Your task to perform on an android device: change the clock display to show seconds Image 0: 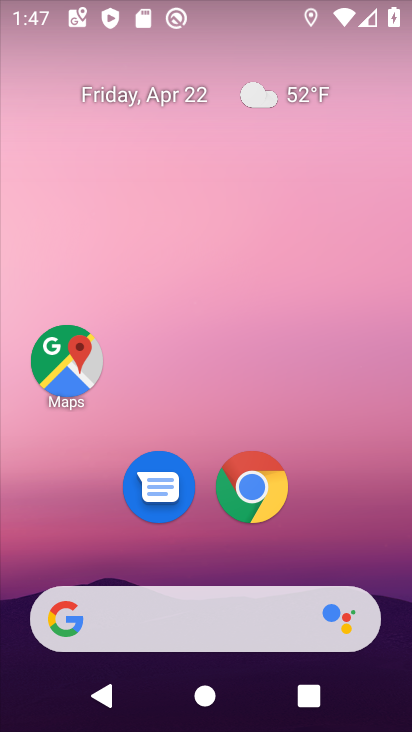
Step 0: drag from (222, 574) to (248, 155)
Your task to perform on an android device: change the clock display to show seconds Image 1: 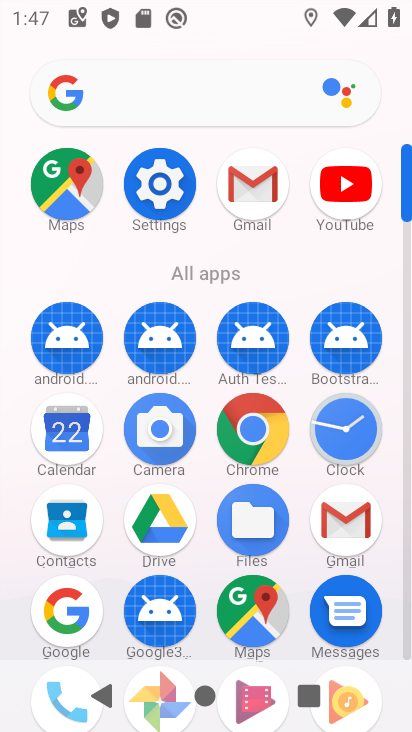
Step 1: click (326, 434)
Your task to perform on an android device: change the clock display to show seconds Image 2: 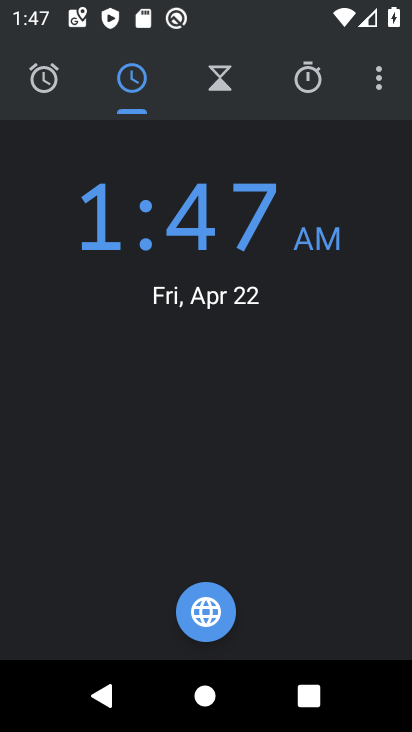
Step 2: click (367, 98)
Your task to perform on an android device: change the clock display to show seconds Image 3: 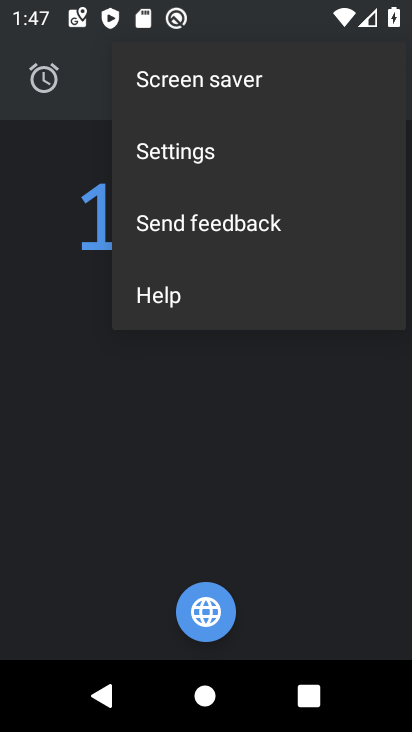
Step 3: click (199, 172)
Your task to perform on an android device: change the clock display to show seconds Image 4: 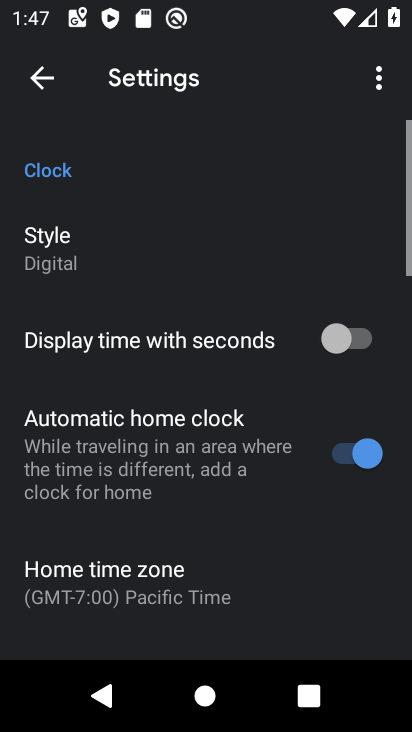
Step 4: click (339, 347)
Your task to perform on an android device: change the clock display to show seconds Image 5: 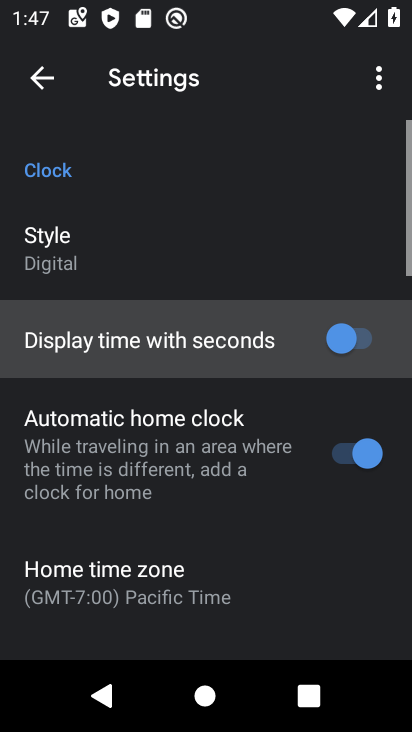
Step 5: click (66, 256)
Your task to perform on an android device: change the clock display to show seconds Image 6: 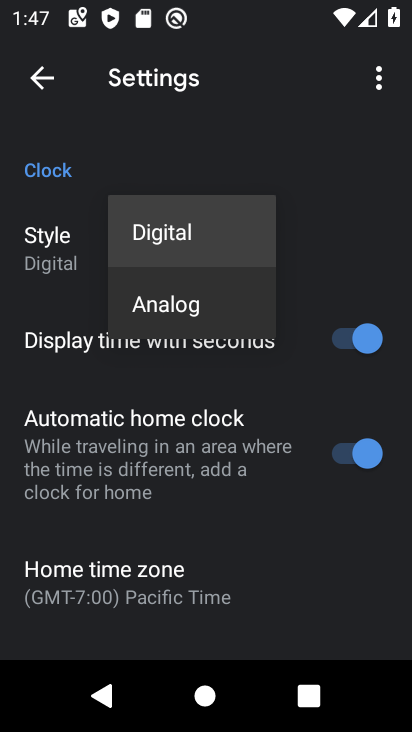
Step 6: click (138, 305)
Your task to perform on an android device: change the clock display to show seconds Image 7: 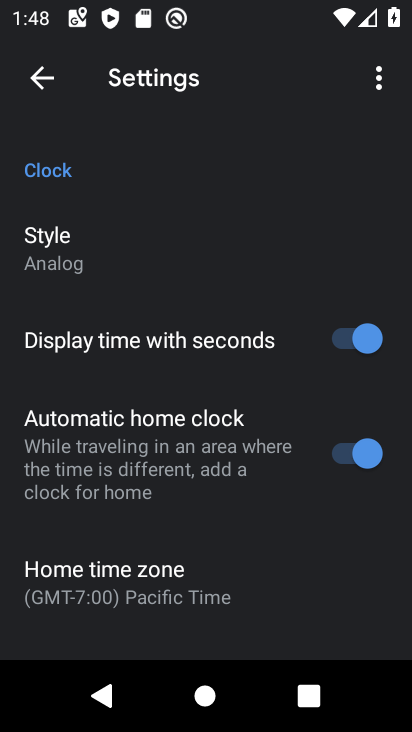
Step 7: task complete